Your task to perform on an android device: check google app version Image 0: 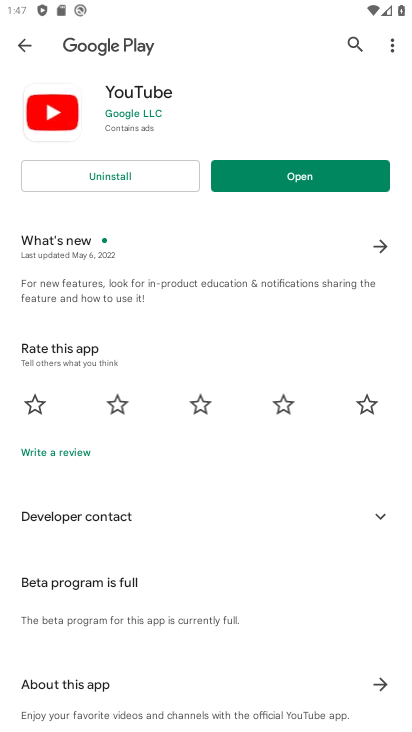
Step 0: press home button
Your task to perform on an android device: check google app version Image 1: 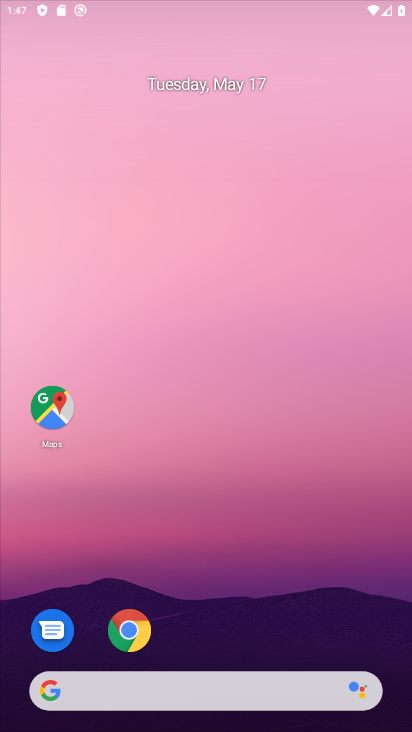
Step 1: drag from (383, 588) to (326, 90)
Your task to perform on an android device: check google app version Image 2: 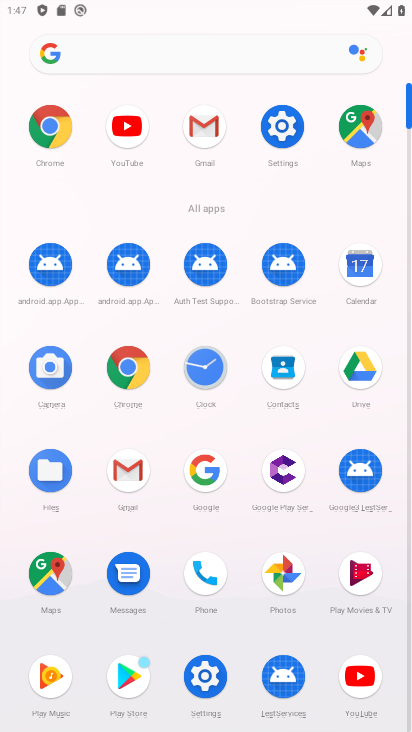
Step 2: click (207, 485)
Your task to perform on an android device: check google app version Image 3: 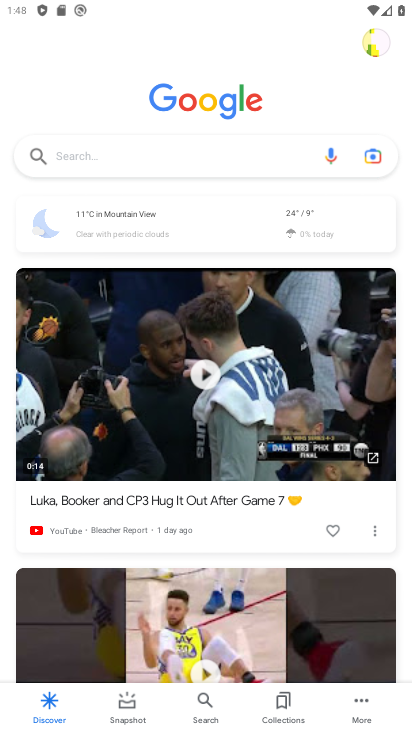
Step 3: click (359, 702)
Your task to perform on an android device: check google app version Image 4: 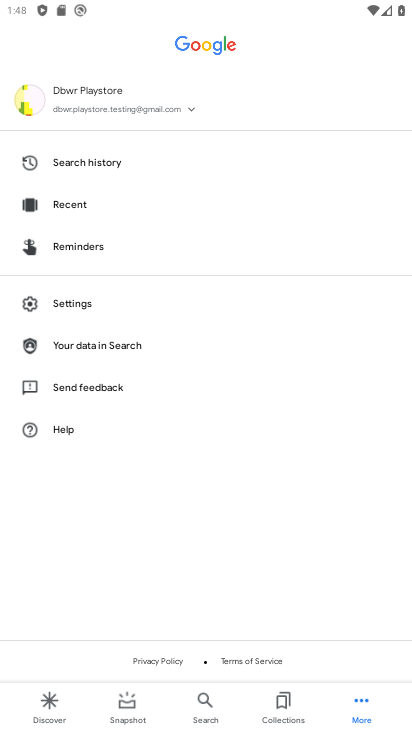
Step 4: click (111, 301)
Your task to perform on an android device: check google app version Image 5: 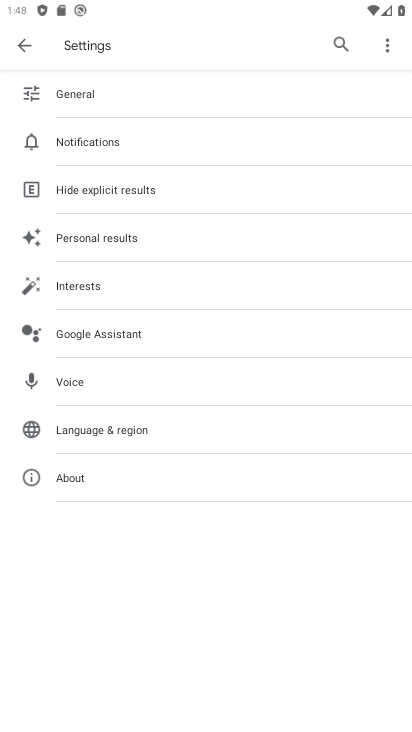
Step 5: click (133, 486)
Your task to perform on an android device: check google app version Image 6: 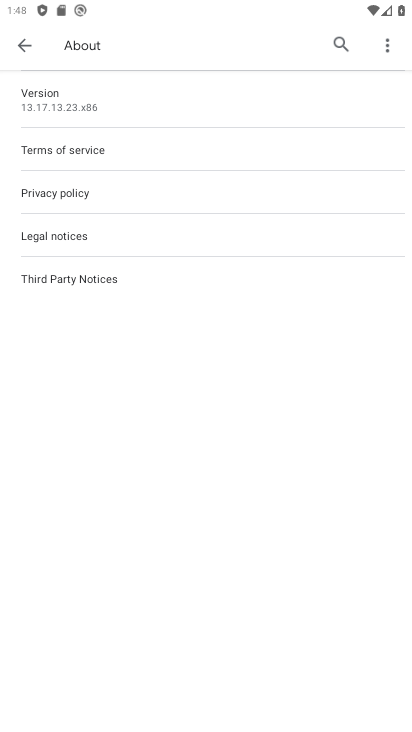
Step 6: task complete